Your task to perform on an android device: change notifications settings Image 0: 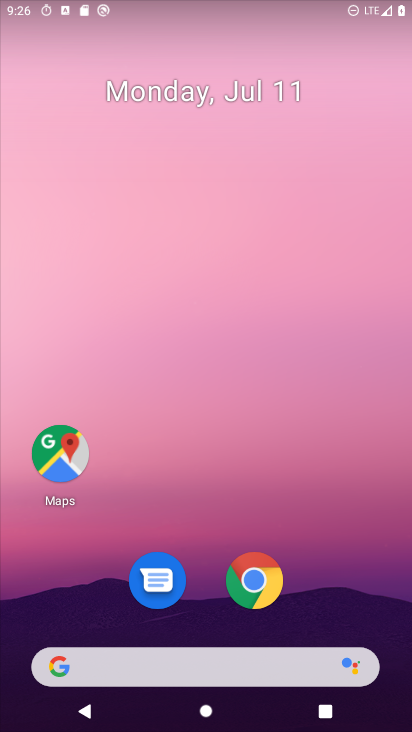
Step 0: drag from (303, 589) to (257, 7)
Your task to perform on an android device: change notifications settings Image 1: 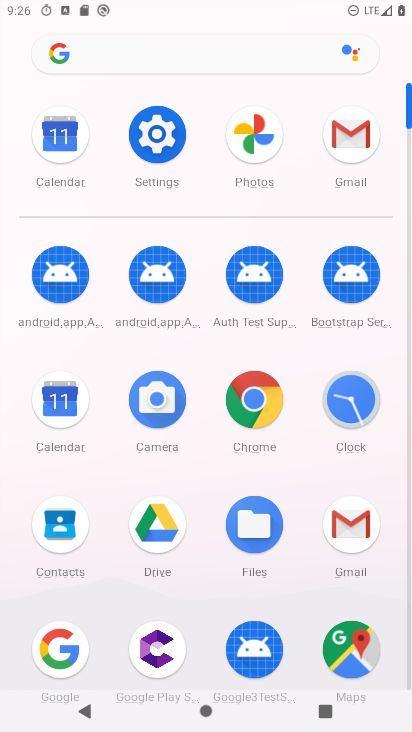
Step 1: click (163, 141)
Your task to perform on an android device: change notifications settings Image 2: 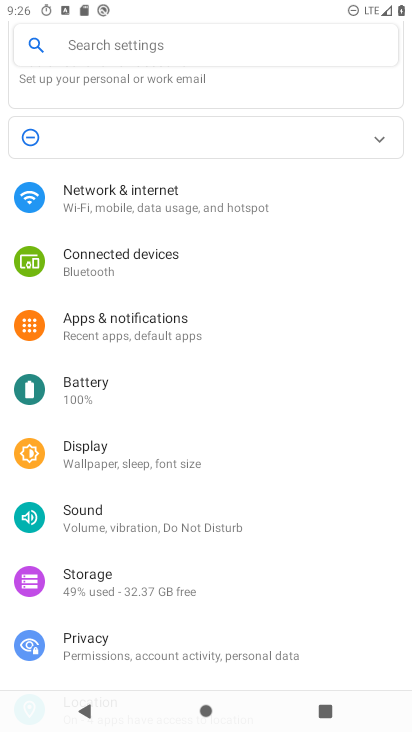
Step 2: click (162, 332)
Your task to perform on an android device: change notifications settings Image 3: 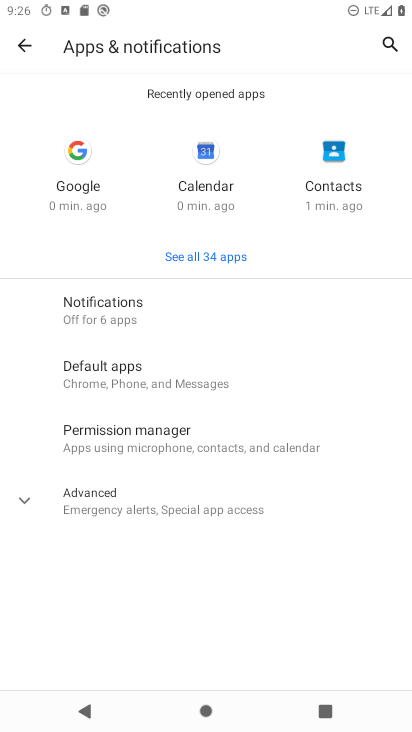
Step 3: click (129, 314)
Your task to perform on an android device: change notifications settings Image 4: 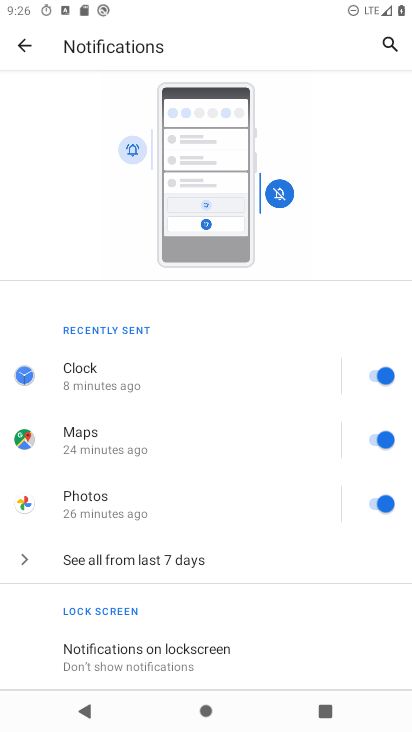
Step 4: click (191, 554)
Your task to perform on an android device: change notifications settings Image 5: 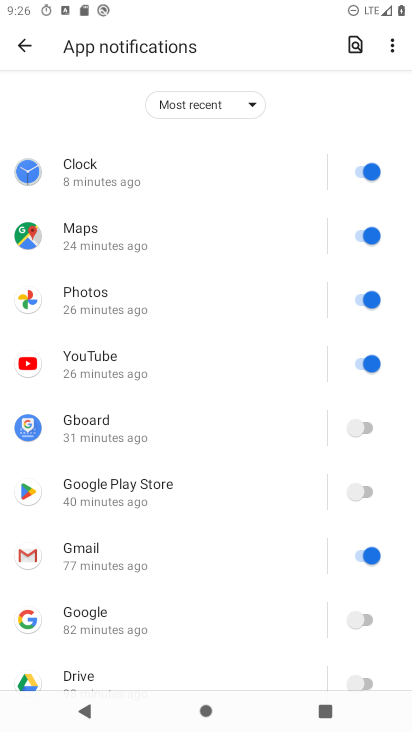
Step 5: click (370, 168)
Your task to perform on an android device: change notifications settings Image 6: 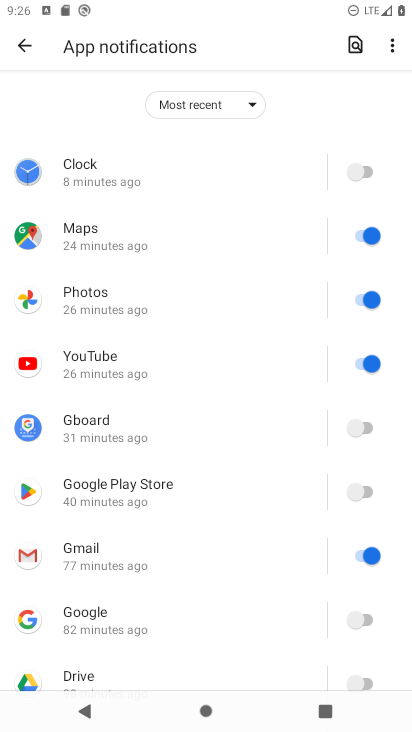
Step 6: click (367, 228)
Your task to perform on an android device: change notifications settings Image 7: 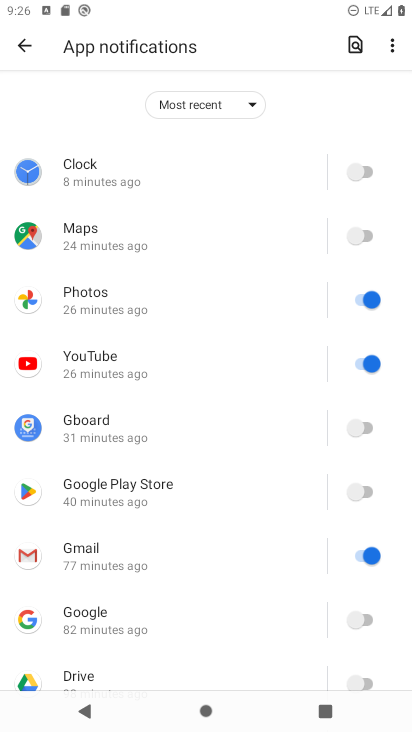
Step 7: click (367, 290)
Your task to perform on an android device: change notifications settings Image 8: 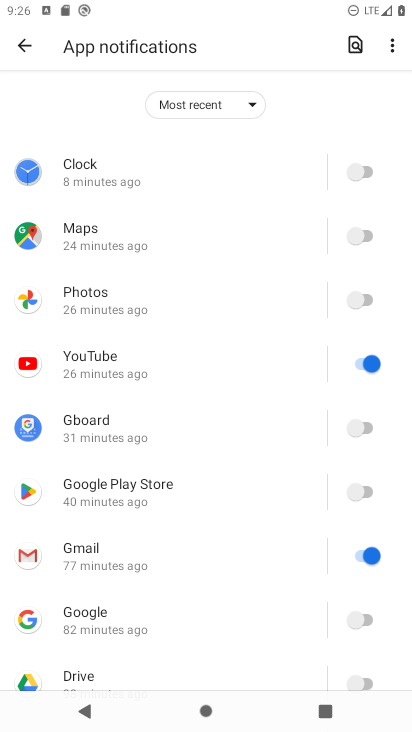
Step 8: click (364, 363)
Your task to perform on an android device: change notifications settings Image 9: 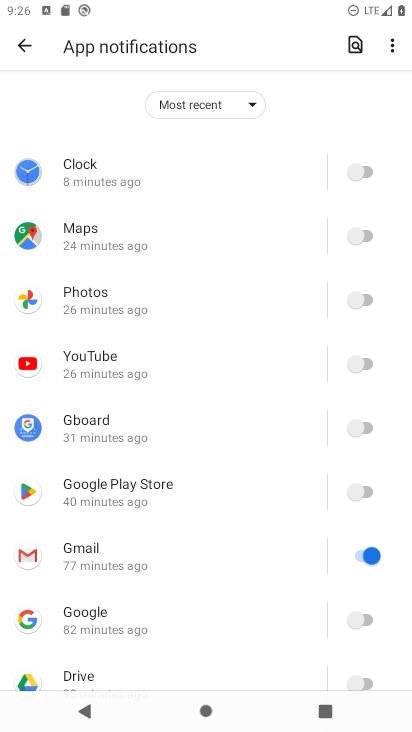
Step 9: click (363, 427)
Your task to perform on an android device: change notifications settings Image 10: 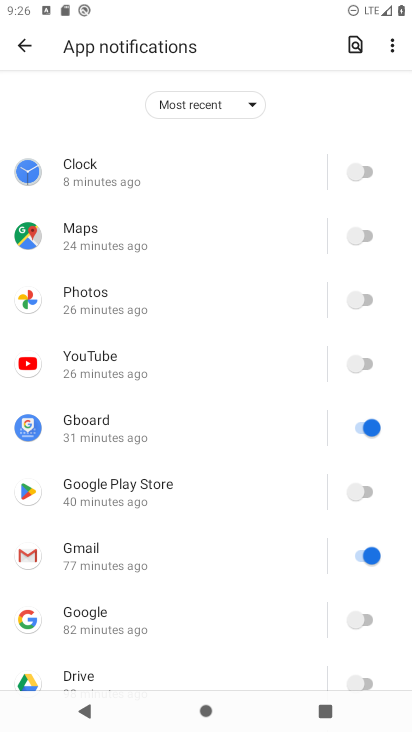
Step 10: click (364, 486)
Your task to perform on an android device: change notifications settings Image 11: 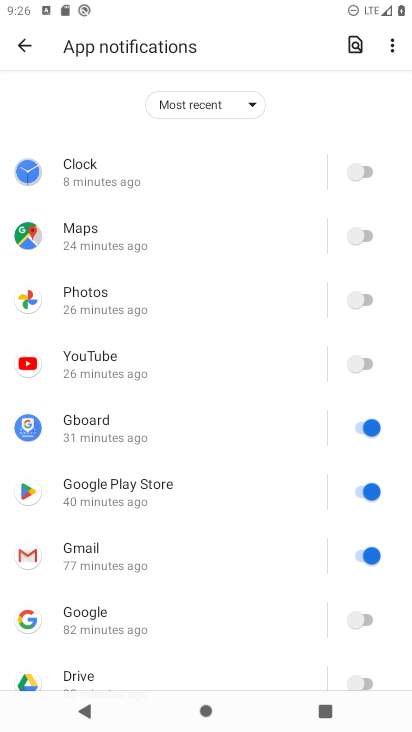
Step 11: click (364, 550)
Your task to perform on an android device: change notifications settings Image 12: 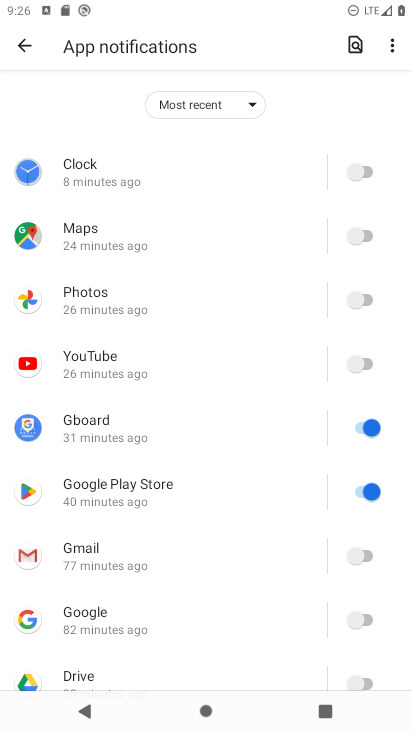
Step 12: click (367, 618)
Your task to perform on an android device: change notifications settings Image 13: 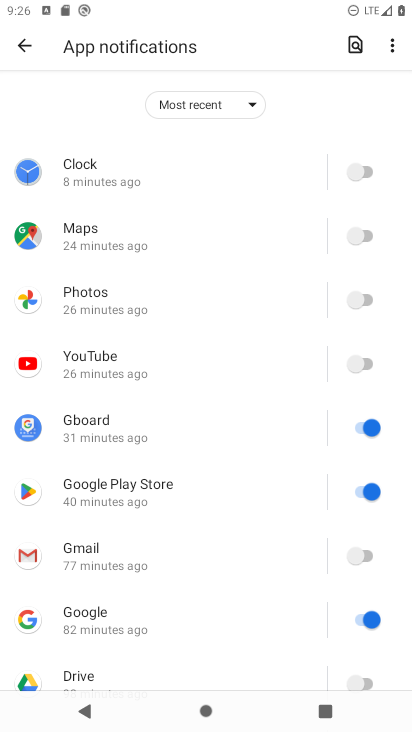
Step 13: drag from (244, 558) to (215, 167)
Your task to perform on an android device: change notifications settings Image 14: 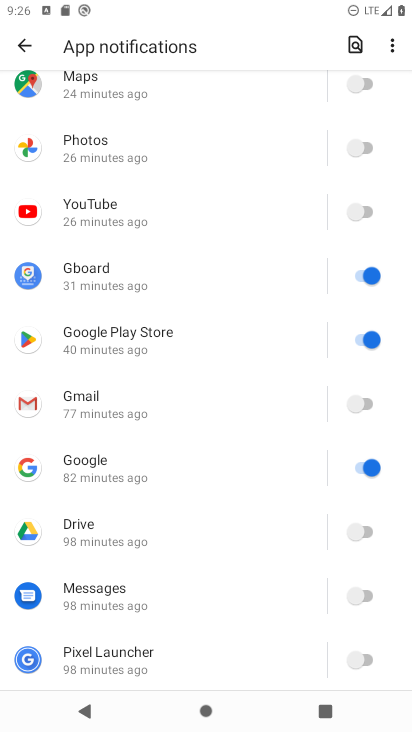
Step 14: click (361, 527)
Your task to perform on an android device: change notifications settings Image 15: 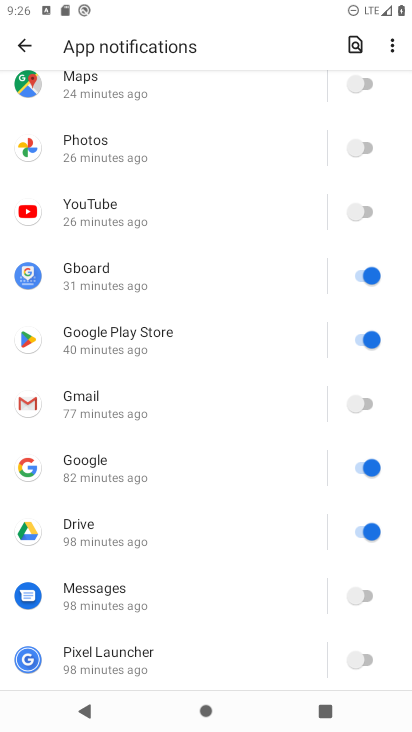
Step 15: click (365, 587)
Your task to perform on an android device: change notifications settings Image 16: 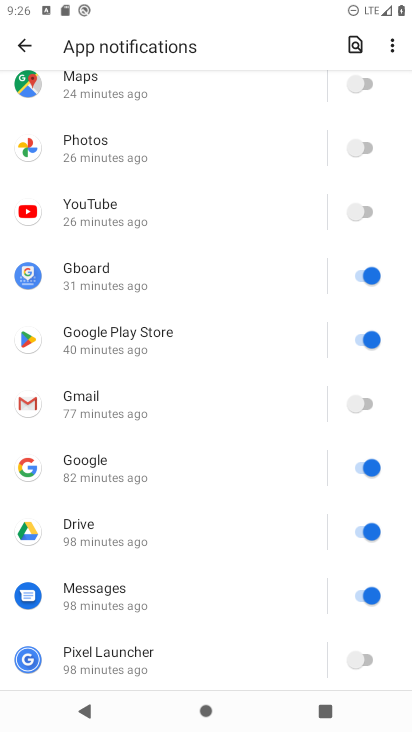
Step 16: click (366, 660)
Your task to perform on an android device: change notifications settings Image 17: 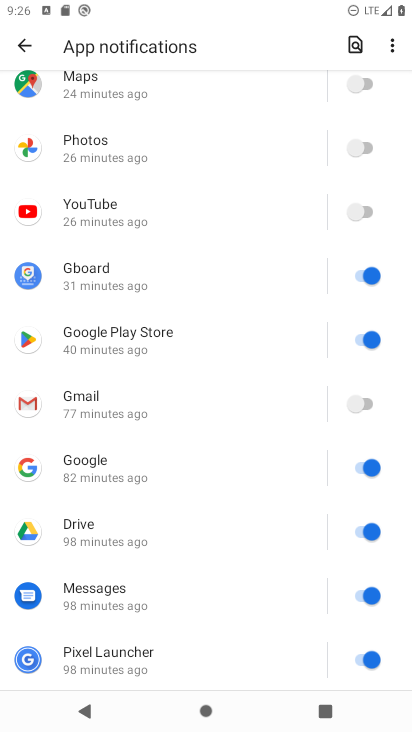
Step 17: task complete